Your task to perform on an android device: Go to privacy settings Image 0: 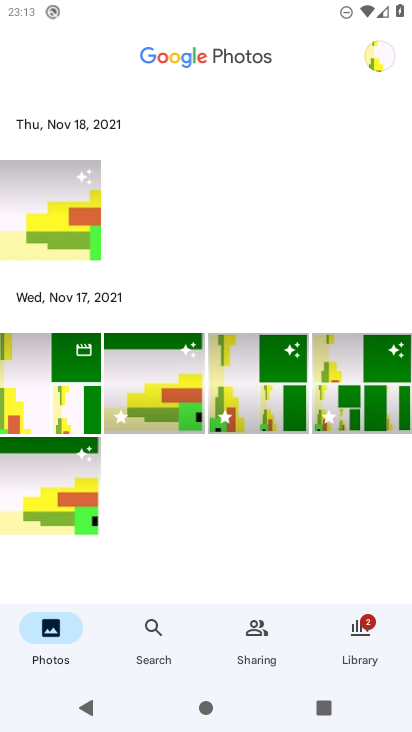
Step 0: press home button
Your task to perform on an android device: Go to privacy settings Image 1: 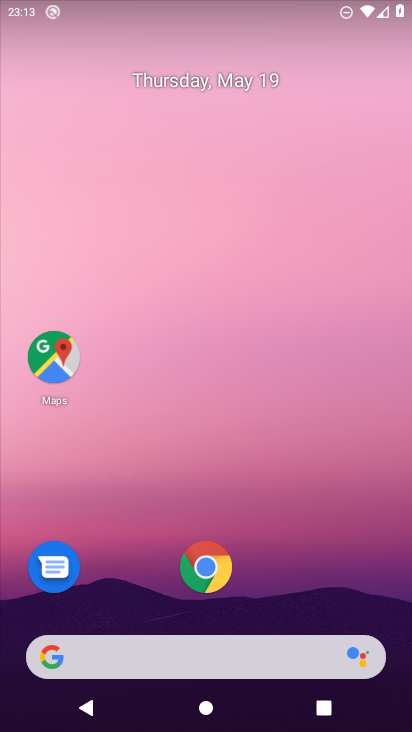
Step 1: drag from (171, 614) to (197, 126)
Your task to perform on an android device: Go to privacy settings Image 2: 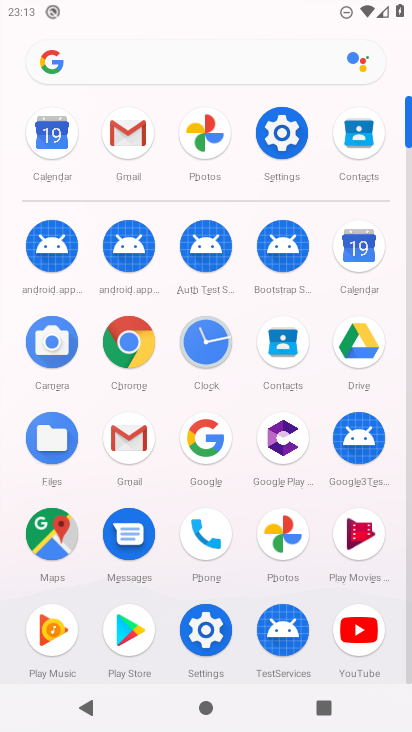
Step 2: click (199, 623)
Your task to perform on an android device: Go to privacy settings Image 3: 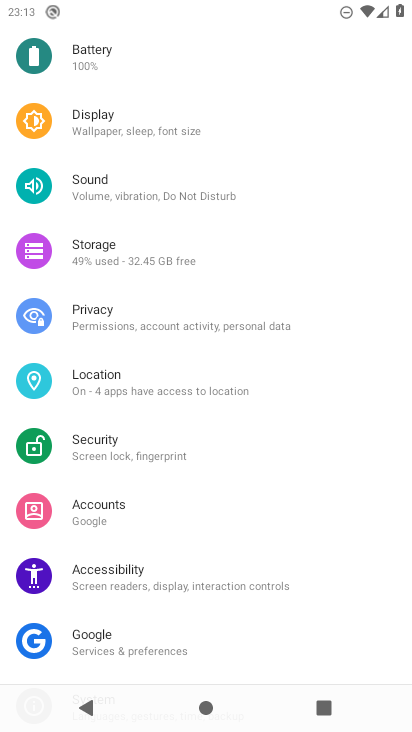
Step 3: click (119, 313)
Your task to perform on an android device: Go to privacy settings Image 4: 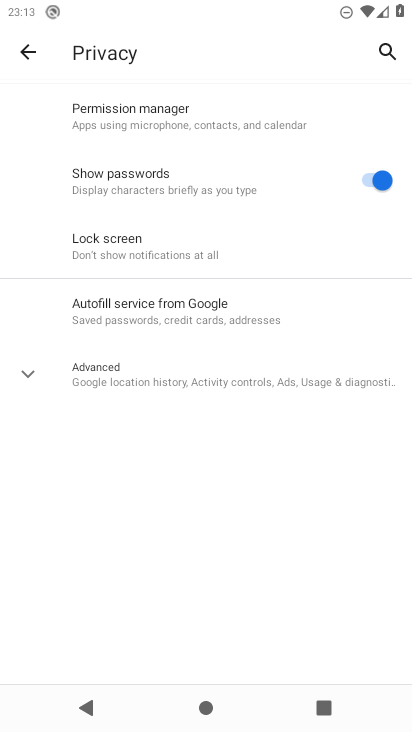
Step 4: click (41, 375)
Your task to perform on an android device: Go to privacy settings Image 5: 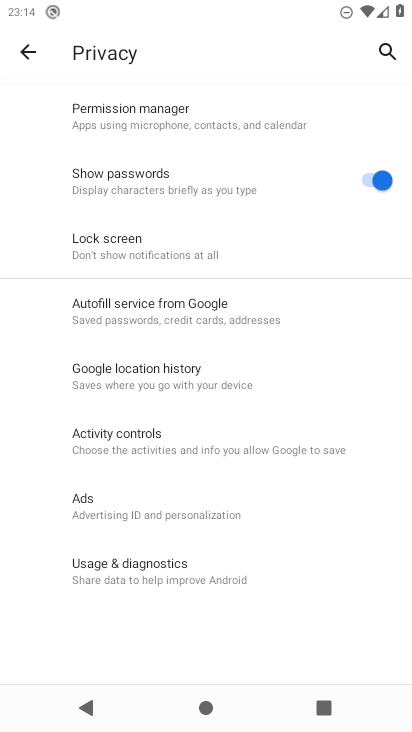
Step 5: task complete